Your task to perform on an android device: Do I have any events this weekend? Image 0: 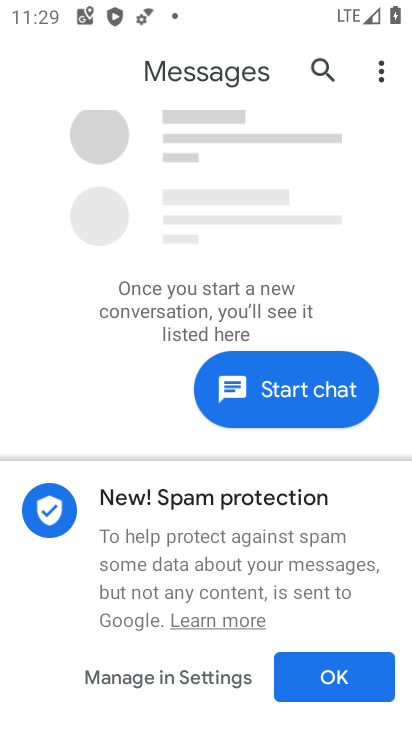
Step 0: press home button
Your task to perform on an android device: Do I have any events this weekend? Image 1: 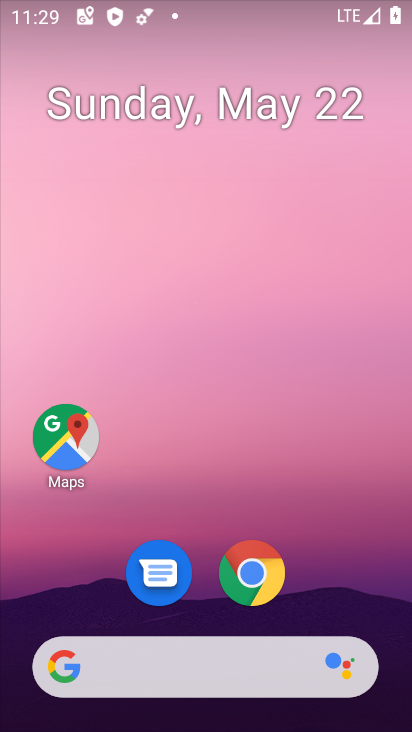
Step 1: drag from (222, 608) to (146, 3)
Your task to perform on an android device: Do I have any events this weekend? Image 2: 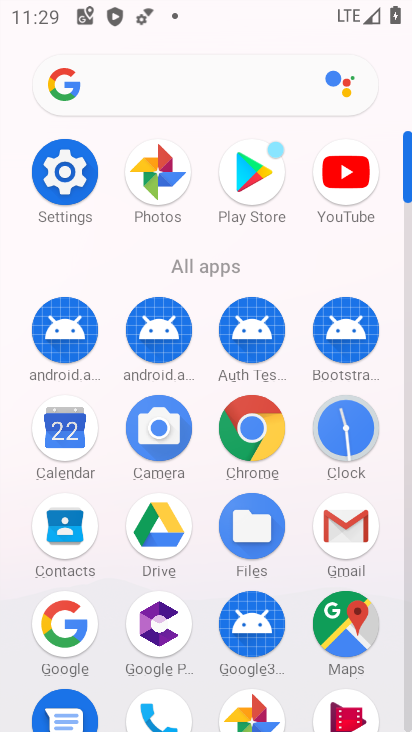
Step 2: click (69, 427)
Your task to perform on an android device: Do I have any events this weekend? Image 3: 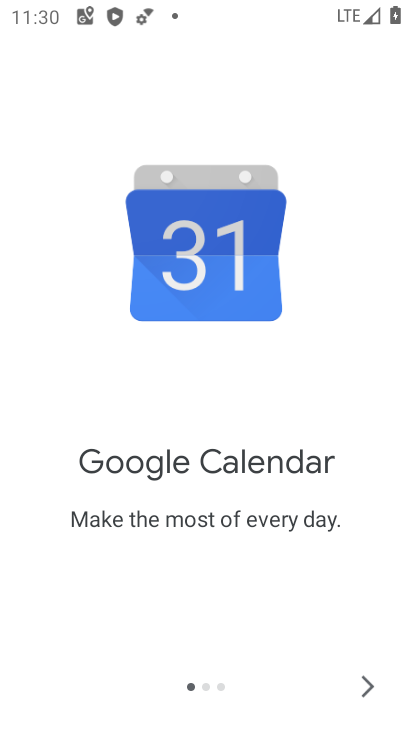
Step 3: click (363, 682)
Your task to perform on an android device: Do I have any events this weekend? Image 4: 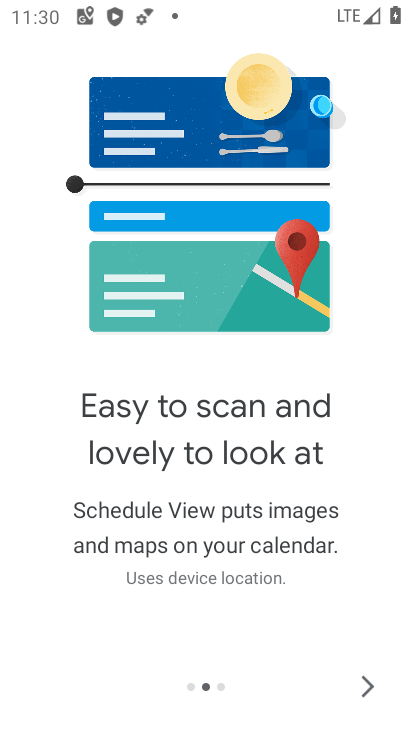
Step 4: click (356, 682)
Your task to perform on an android device: Do I have any events this weekend? Image 5: 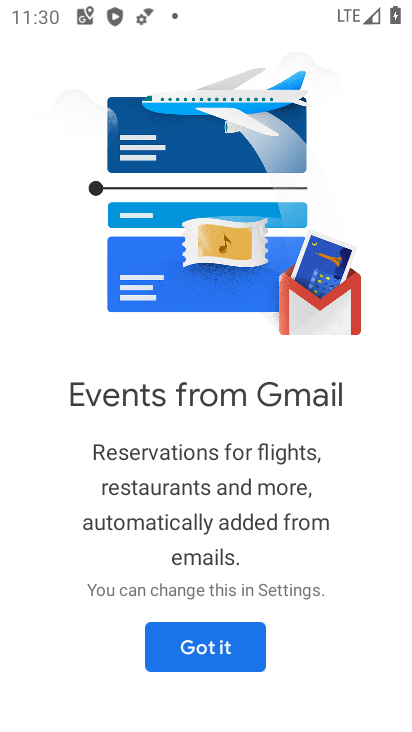
Step 5: click (209, 643)
Your task to perform on an android device: Do I have any events this weekend? Image 6: 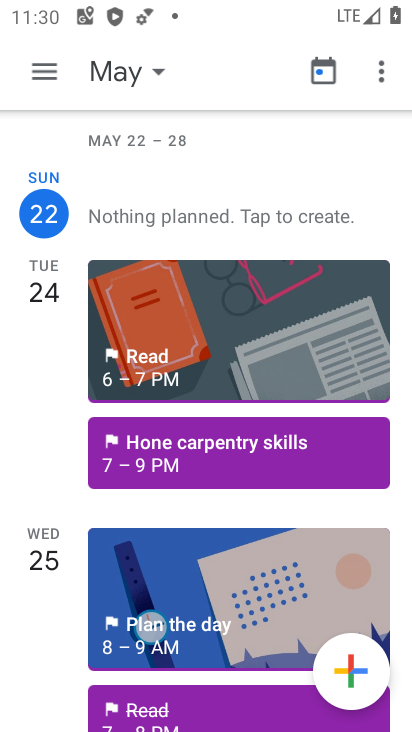
Step 6: click (140, 57)
Your task to perform on an android device: Do I have any events this weekend? Image 7: 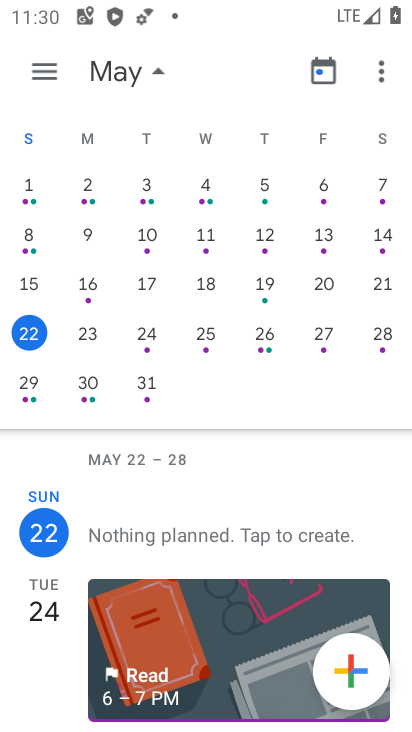
Step 7: click (383, 345)
Your task to perform on an android device: Do I have any events this weekend? Image 8: 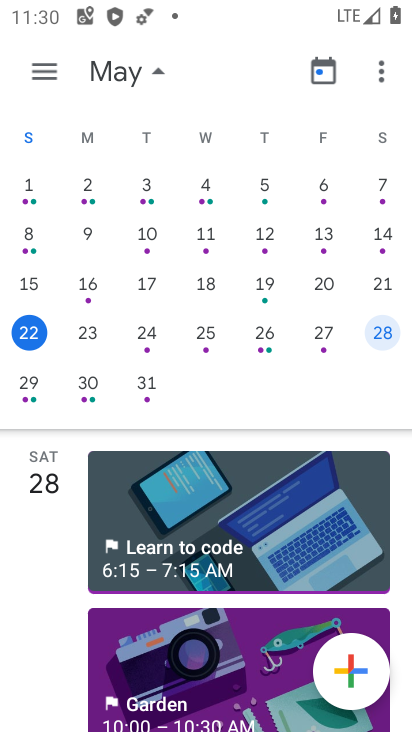
Step 8: task complete